Your task to perform on an android device: open wifi settings Image 0: 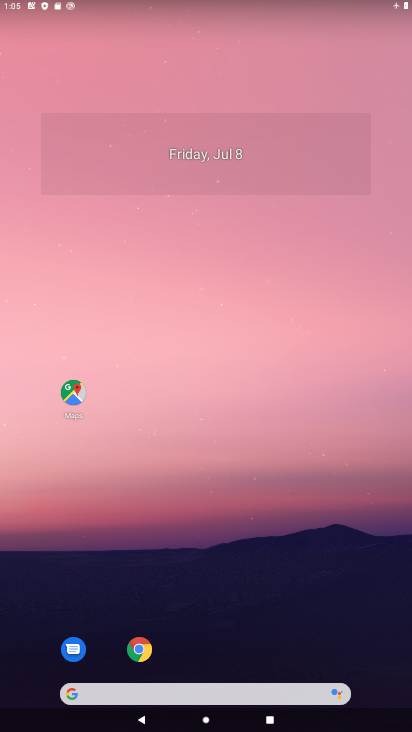
Step 0: drag from (34, 697) to (367, 581)
Your task to perform on an android device: open wifi settings Image 1: 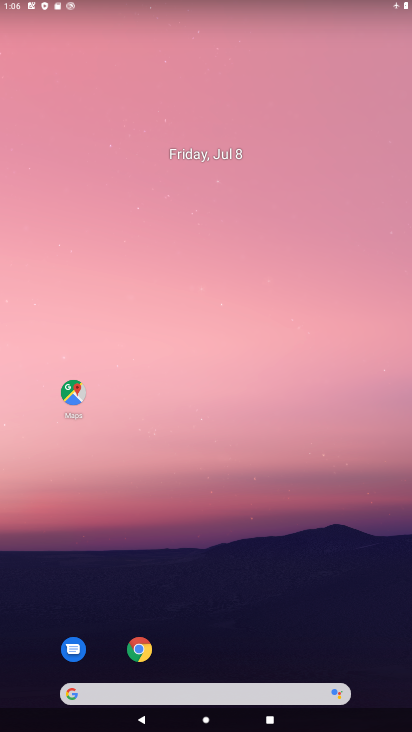
Step 1: drag from (45, 697) to (88, 224)
Your task to perform on an android device: open wifi settings Image 2: 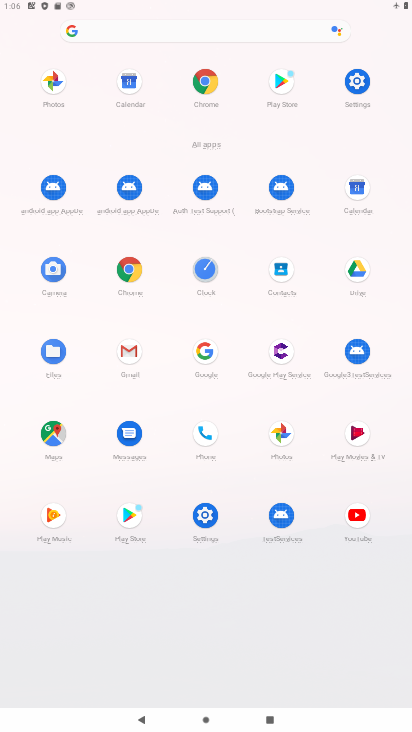
Step 2: click (197, 519)
Your task to perform on an android device: open wifi settings Image 3: 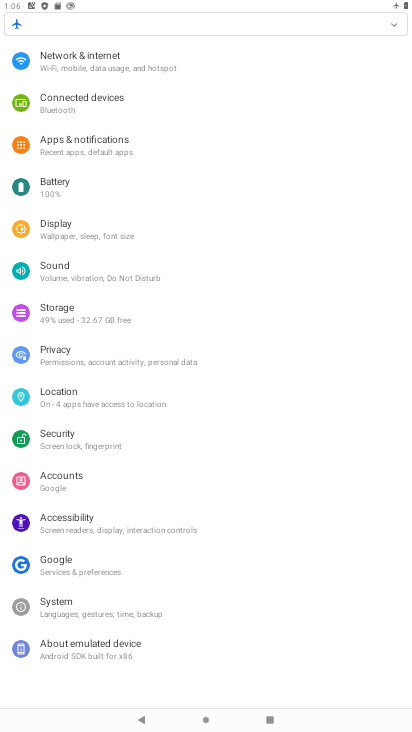
Step 3: click (72, 45)
Your task to perform on an android device: open wifi settings Image 4: 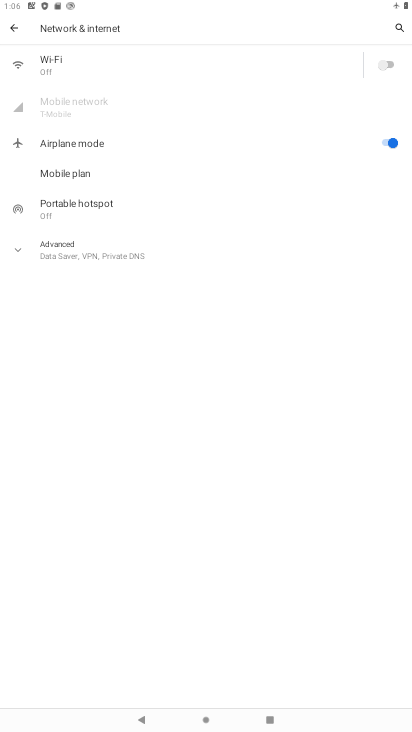
Step 4: click (61, 61)
Your task to perform on an android device: open wifi settings Image 5: 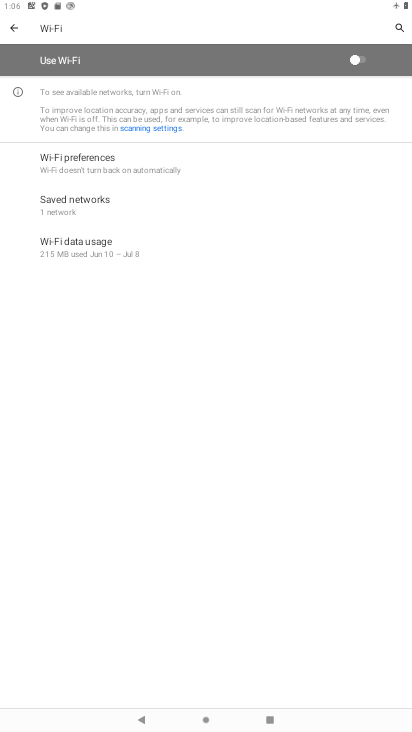
Step 5: click (349, 54)
Your task to perform on an android device: open wifi settings Image 6: 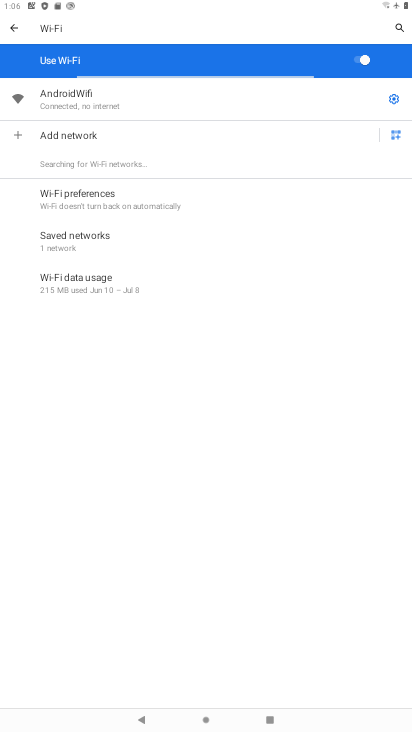
Step 6: task complete